Your task to perform on an android device: Open network settings Image 0: 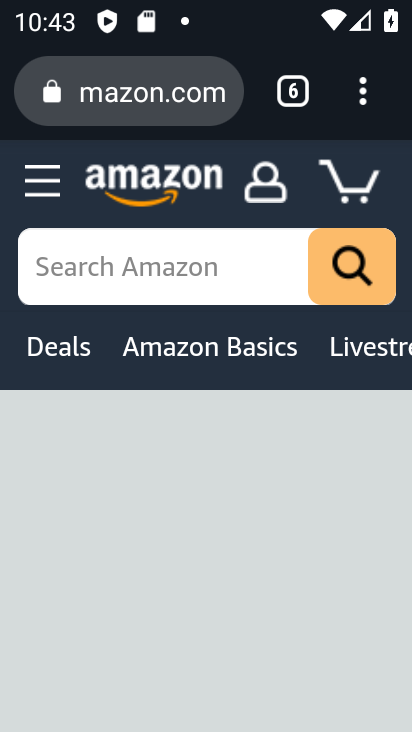
Step 0: press home button
Your task to perform on an android device: Open network settings Image 1: 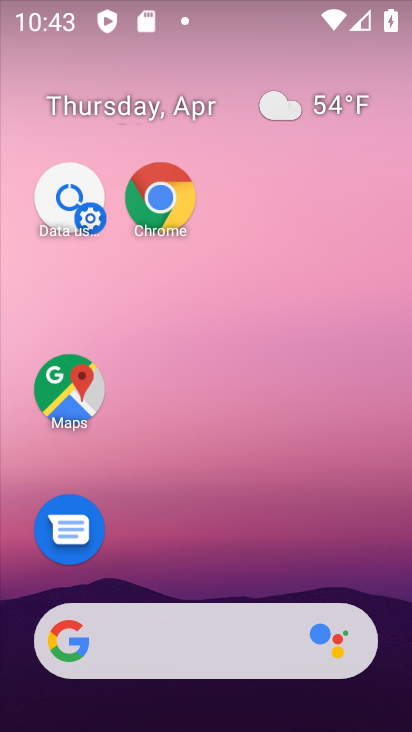
Step 1: drag from (216, 583) to (209, 7)
Your task to perform on an android device: Open network settings Image 2: 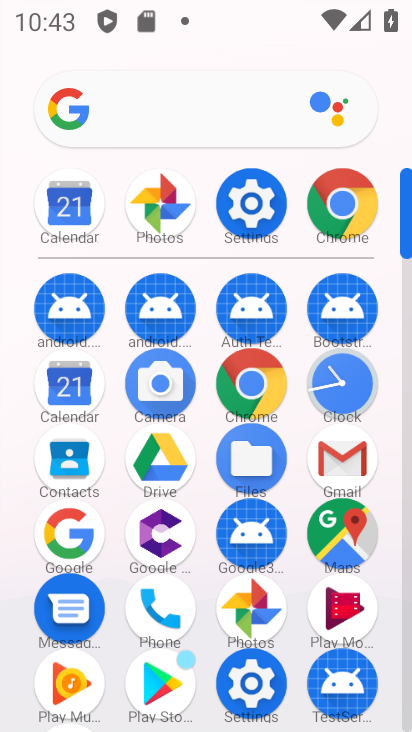
Step 2: click (251, 205)
Your task to perform on an android device: Open network settings Image 3: 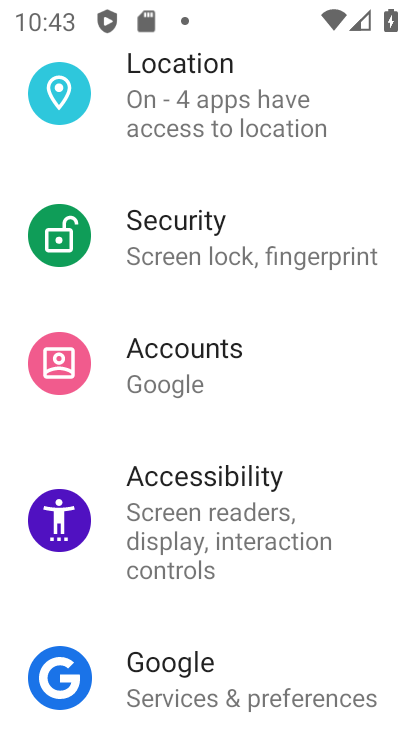
Step 3: drag from (251, 205) to (236, 645)
Your task to perform on an android device: Open network settings Image 4: 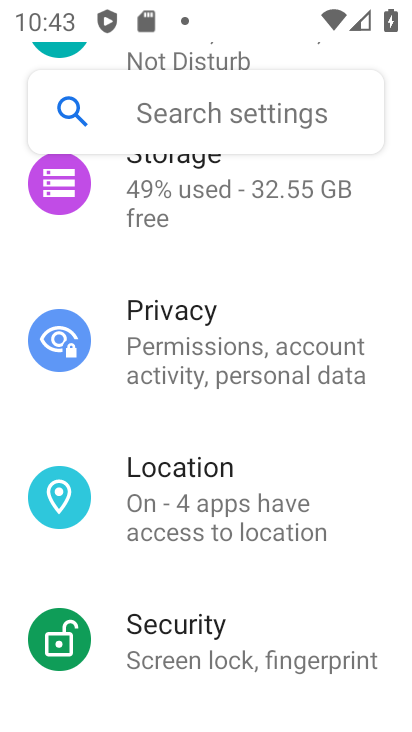
Step 4: drag from (227, 229) to (216, 546)
Your task to perform on an android device: Open network settings Image 5: 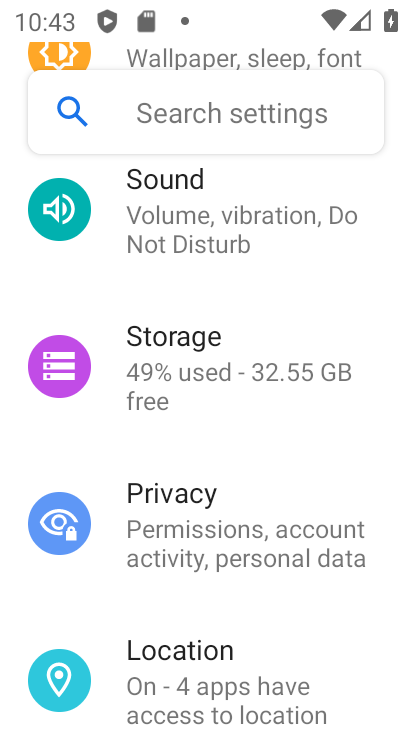
Step 5: drag from (234, 310) to (227, 607)
Your task to perform on an android device: Open network settings Image 6: 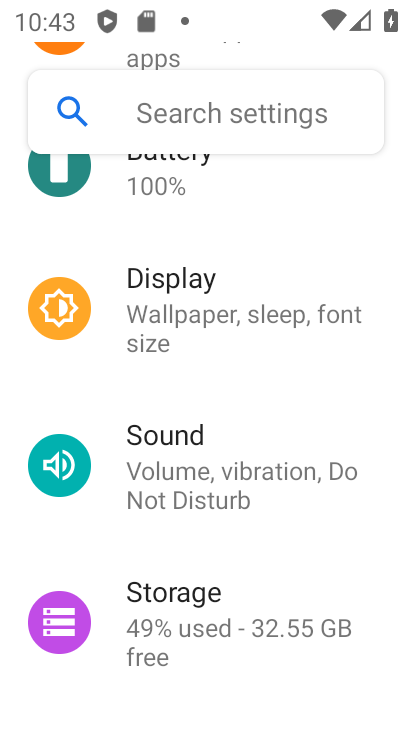
Step 6: drag from (246, 289) to (239, 628)
Your task to perform on an android device: Open network settings Image 7: 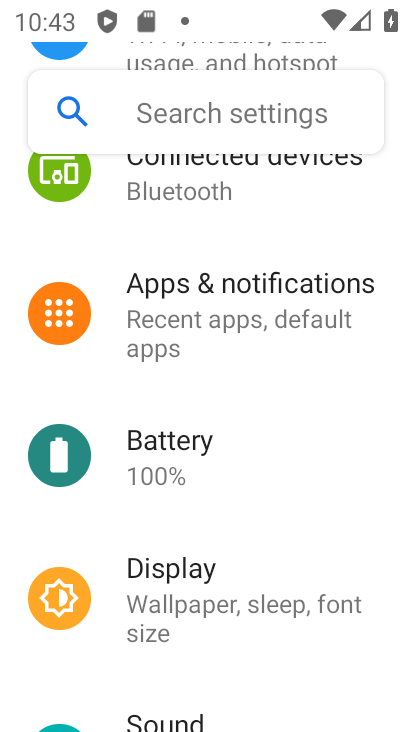
Step 7: drag from (235, 278) to (250, 631)
Your task to perform on an android device: Open network settings Image 8: 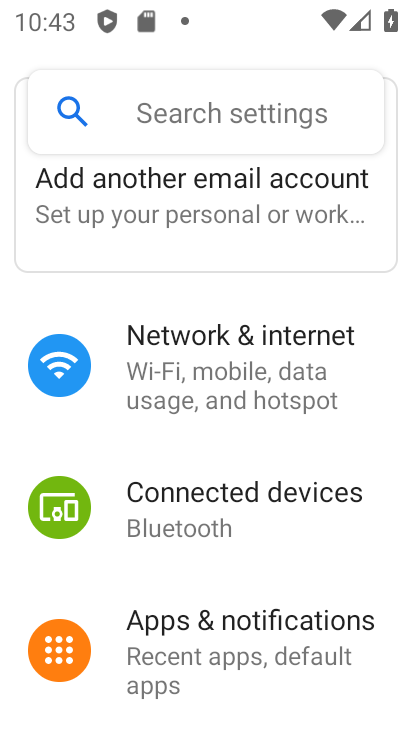
Step 8: click (244, 352)
Your task to perform on an android device: Open network settings Image 9: 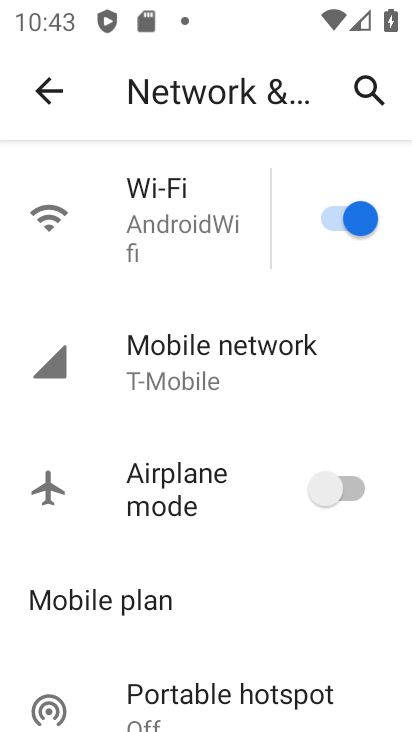
Step 9: click (161, 365)
Your task to perform on an android device: Open network settings Image 10: 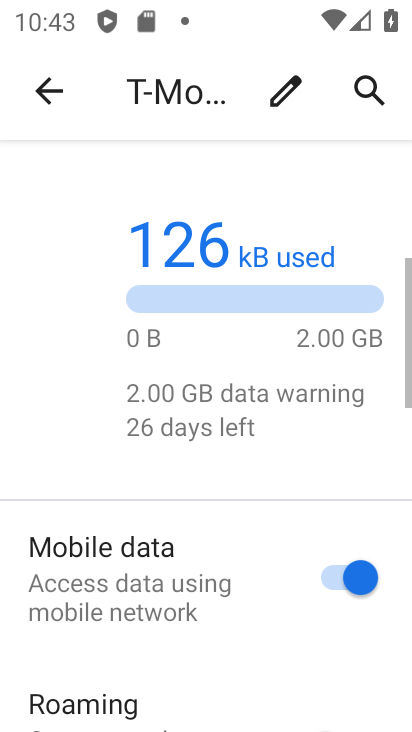
Step 10: task complete